Your task to perform on an android device: show emergency info Image 0: 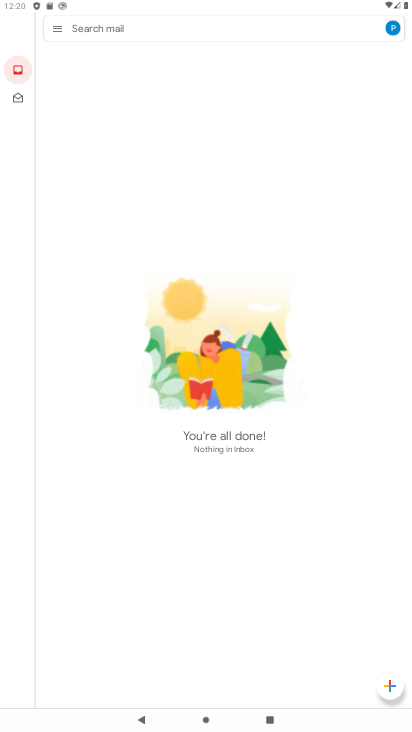
Step 0: press home button
Your task to perform on an android device: show emergency info Image 1: 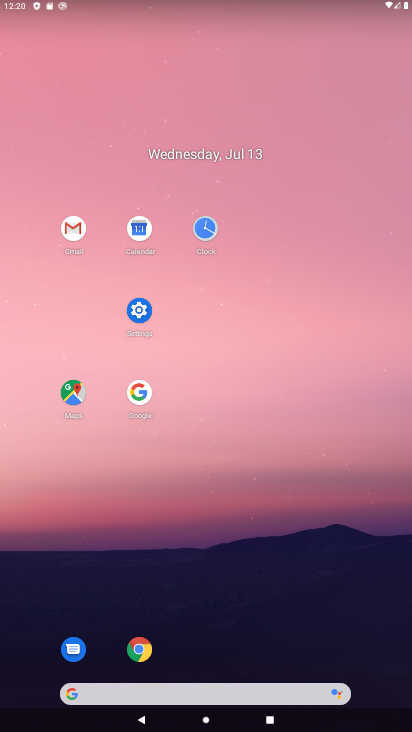
Step 1: click (143, 320)
Your task to perform on an android device: show emergency info Image 2: 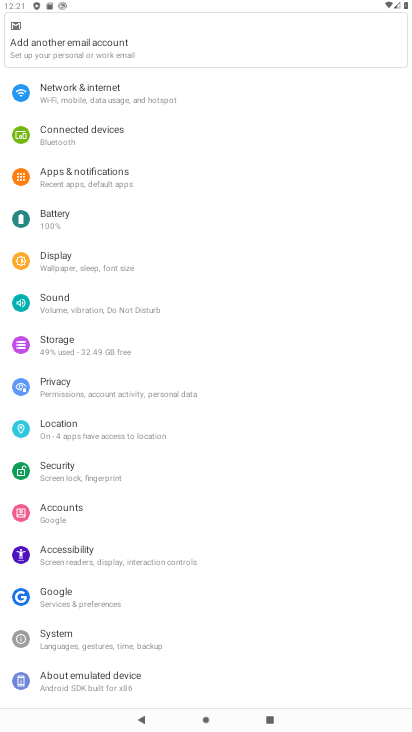
Step 2: click (123, 674)
Your task to perform on an android device: show emergency info Image 3: 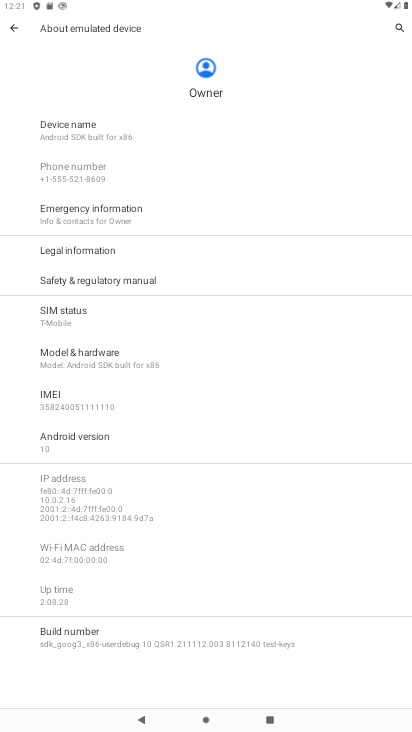
Step 3: click (155, 219)
Your task to perform on an android device: show emergency info Image 4: 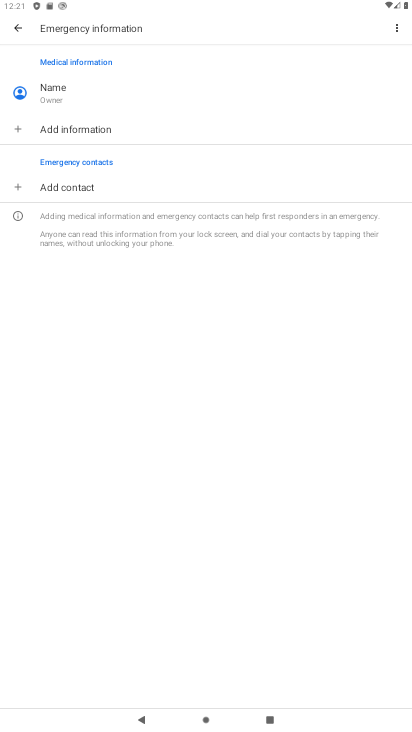
Step 4: task complete